Your task to perform on an android device: refresh tabs in the chrome app Image 0: 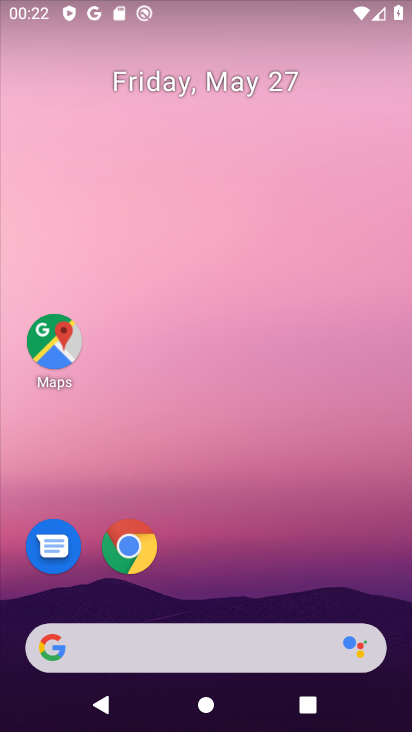
Step 0: drag from (278, 525) to (280, 212)
Your task to perform on an android device: refresh tabs in the chrome app Image 1: 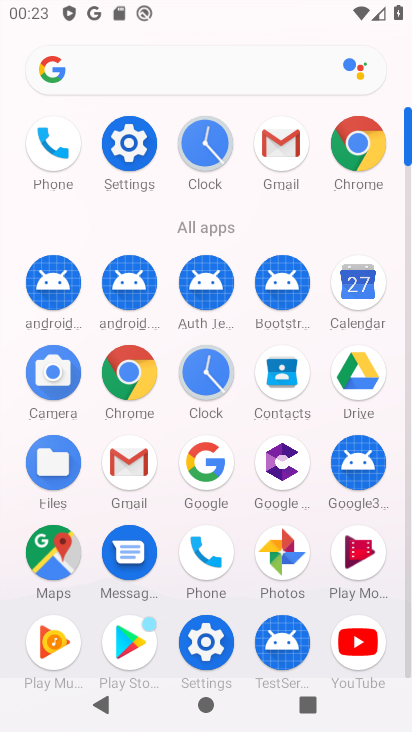
Step 1: click (139, 379)
Your task to perform on an android device: refresh tabs in the chrome app Image 2: 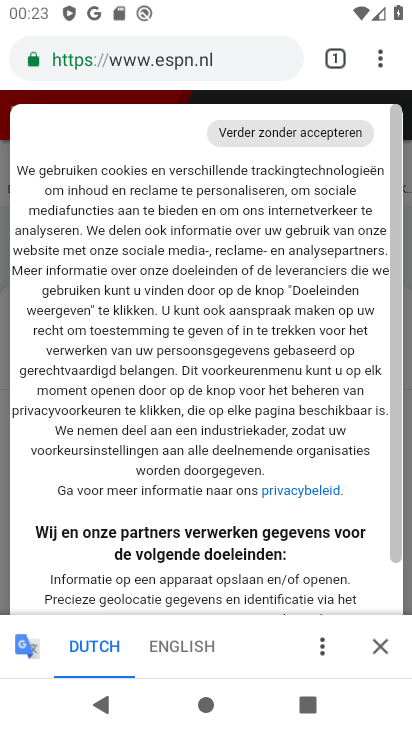
Step 2: task complete